Your task to perform on an android device: Open Chrome and go to settings Image 0: 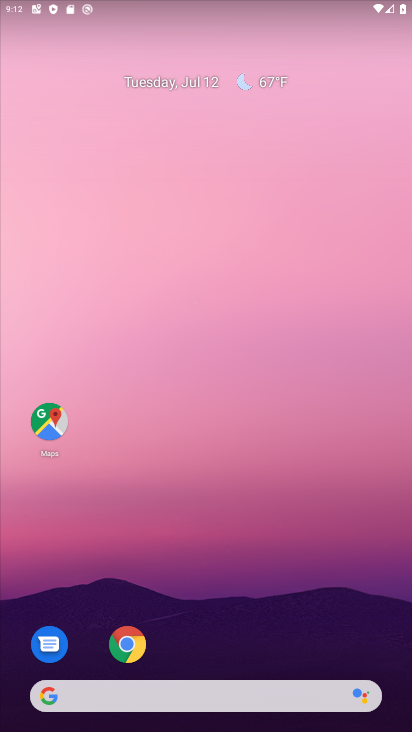
Step 0: drag from (184, 620) to (240, 143)
Your task to perform on an android device: Open Chrome and go to settings Image 1: 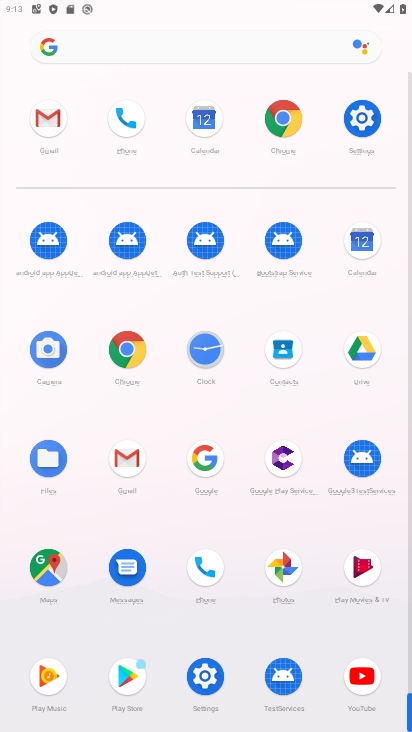
Step 1: click (351, 114)
Your task to perform on an android device: Open Chrome and go to settings Image 2: 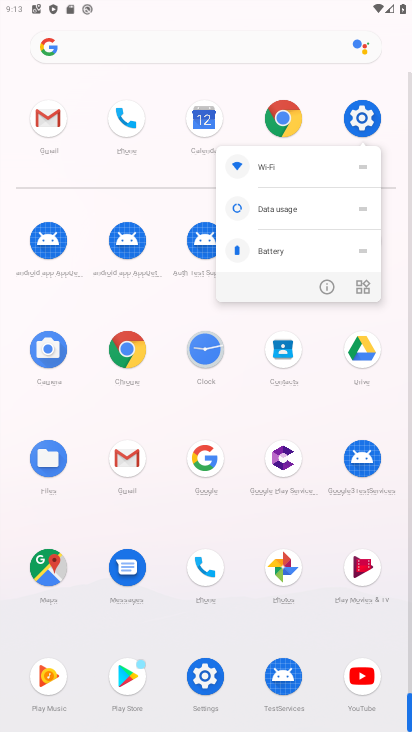
Step 2: click (274, 129)
Your task to perform on an android device: Open Chrome and go to settings Image 3: 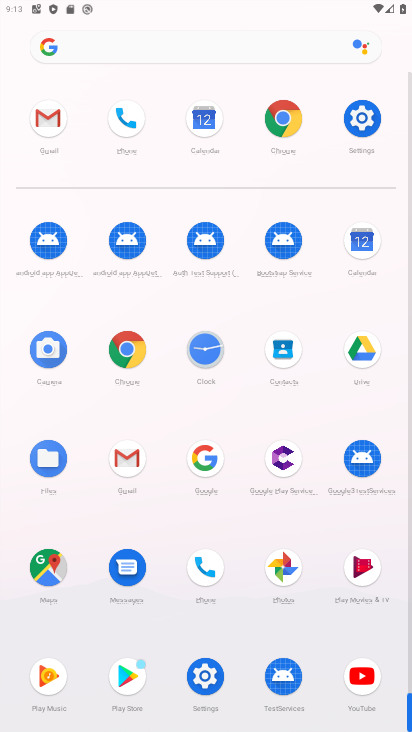
Step 3: click (274, 129)
Your task to perform on an android device: Open Chrome and go to settings Image 4: 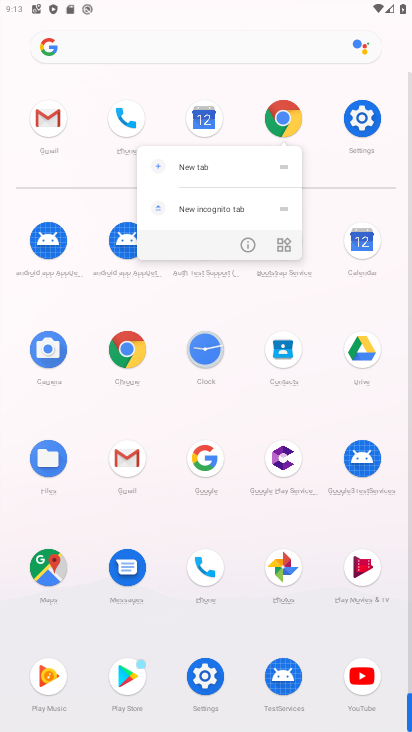
Step 4: click (274, 129)
Your task to perform on an android device: Open Chrome and go to settings Image 5: 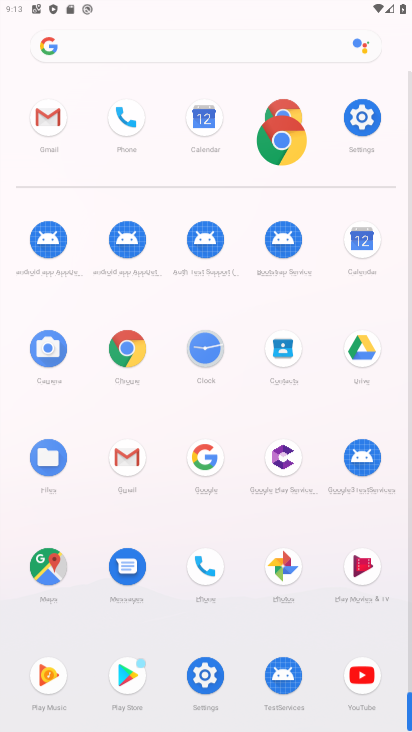
Step 5: click (274, 129)
Your task to perform on an android device: Open Chrome and go to settings Image 6: 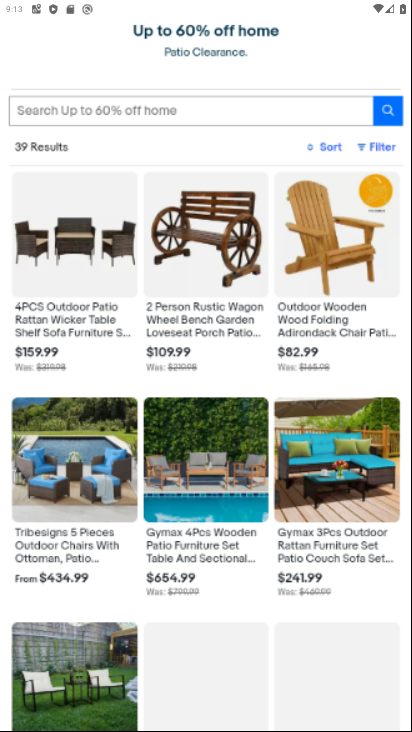
Step 6: click (274, 129)
Your task to perform on an android device: Open Chrome and go to settings Image 7: 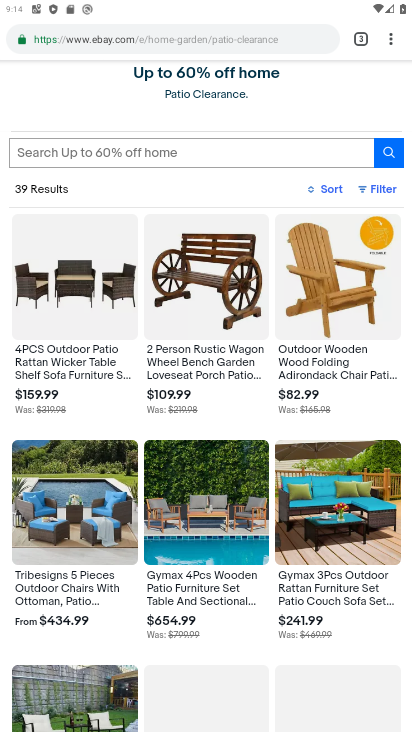
Step 7: drag from (218, 536) to (275, 142)
Your task to perform on an android device: Open Chrome and go to settings Image 8: 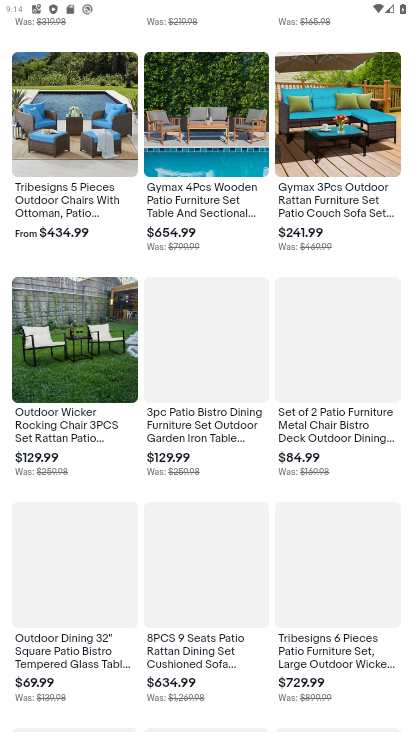
Step 8: drag from (268, 169) to (361, 638)
Your task to perform on an android device: Open Chrome and go to settings Image 9: 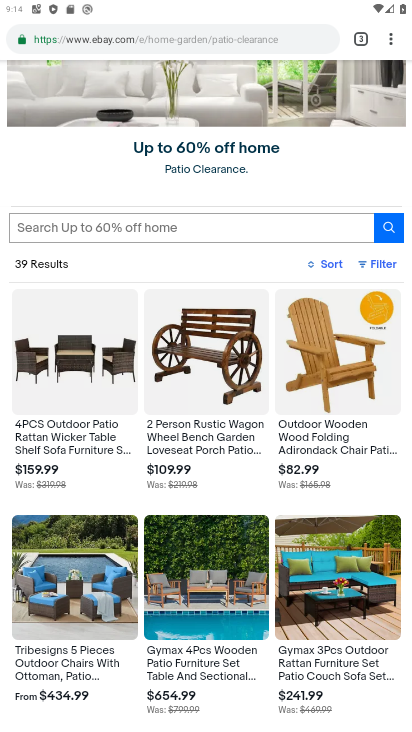
Step 9: drag from (105, 310) to (215, 723)
Your task to perform on an android device: Open Chrome and go to settings Image 10: 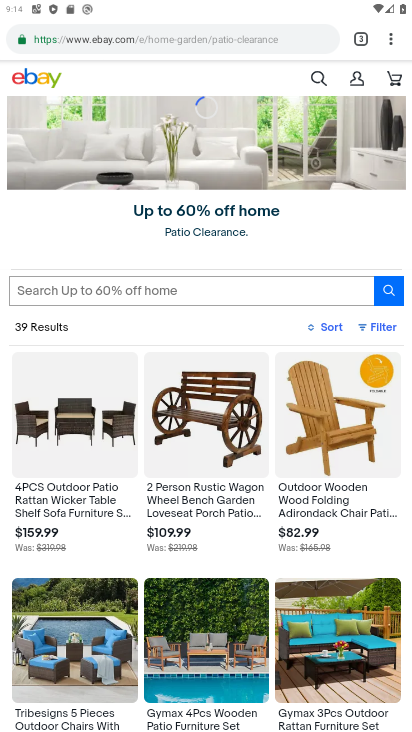
Step 10: click (390, 33)
Your task to perform on an android device: Open Chrome and go to settings Image 11: 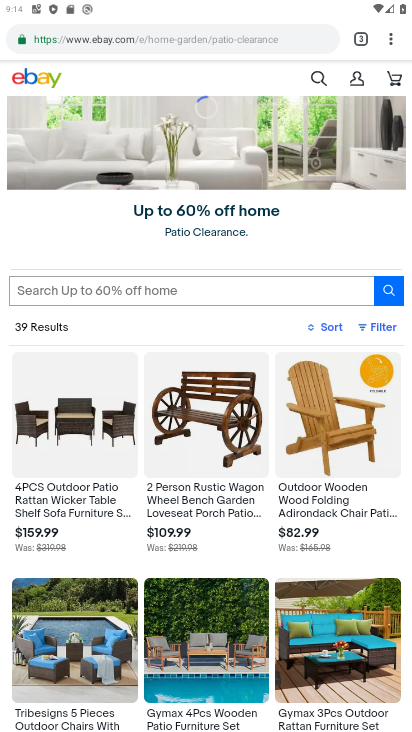
Step 11: drag from (238, 549) to (302, 254)
Your task to perform on an android device: Open Chrome and go to settings Image 12: 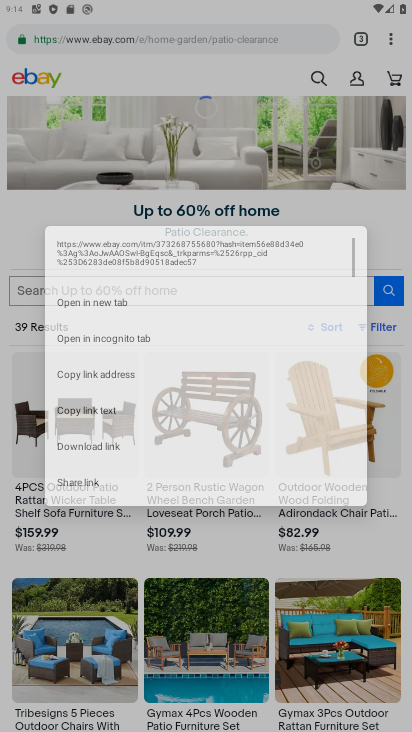
Step 12: click (395, 30)
Your task to perform on an android device: Open Chrome and go to settings Image 13: 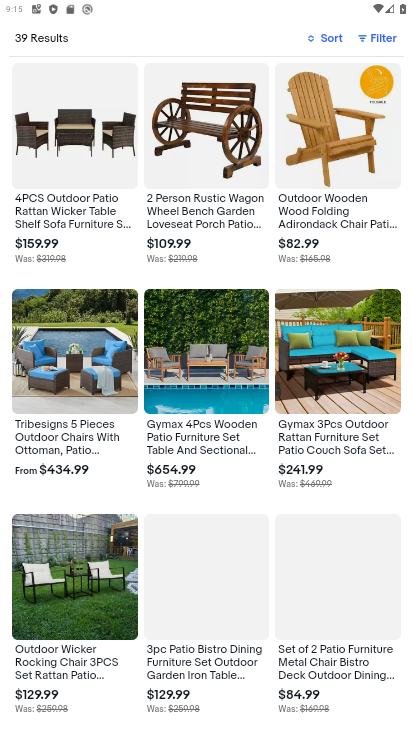
Step 13: drag from (130, 145) to (265, 610)
Your task to perform on an android device: Open Chrome and go to settings Image 14: 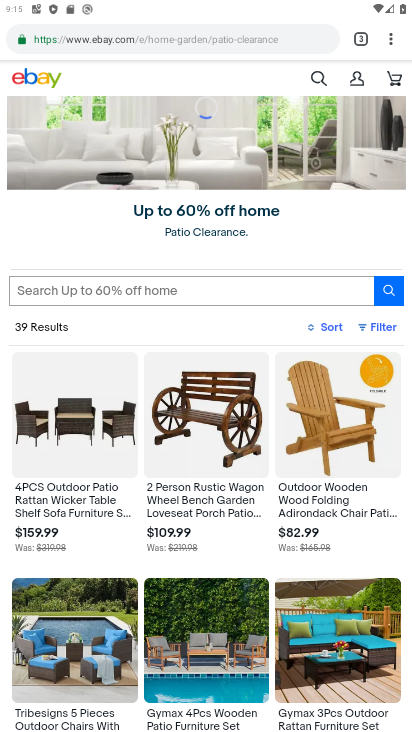
Step 14: click (394, 34)
Your task to perform on an android device: Open Chrome and go to settings Image 15: 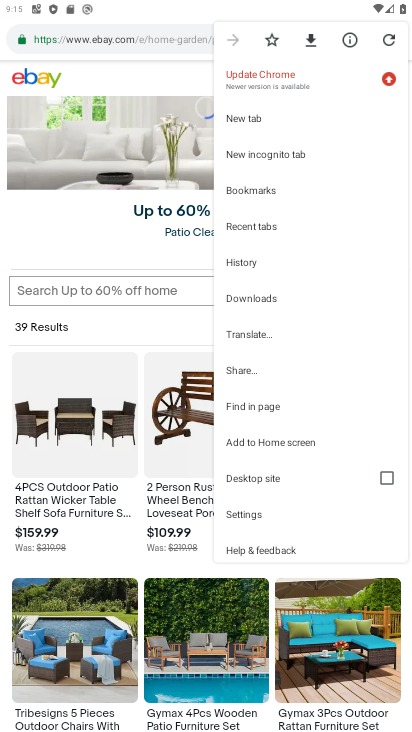
Step 15: click (258, 508)
Your task to perform on an android device: Open Chrome and go to settings Image 16: 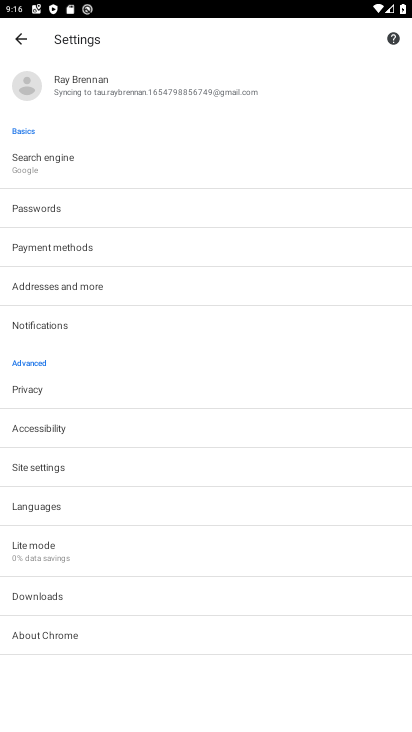
Step 16: task complete